Your task to perform on an android device: open a new tab in the chrome app Image 0: 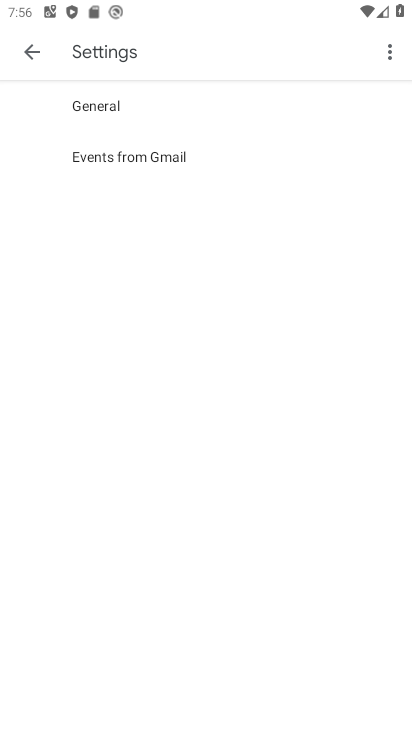
Step 0: press home button
Your task to perform on an android device: open a new tab in the chrome app Image 1: 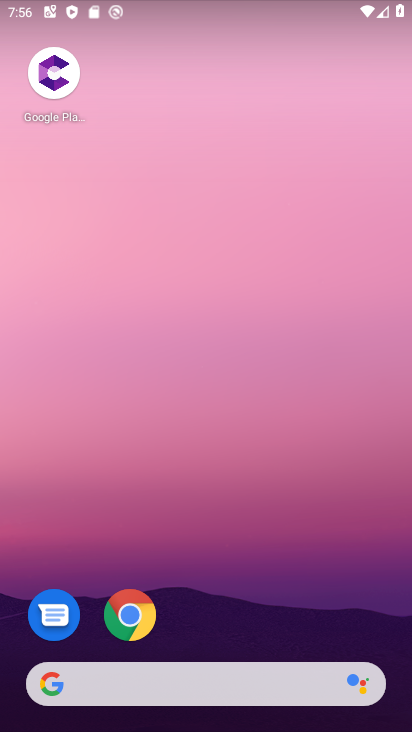
Step 1: click (128, 617)
Your task to perform on an android device: open a new tab in the chrome app Image 2: 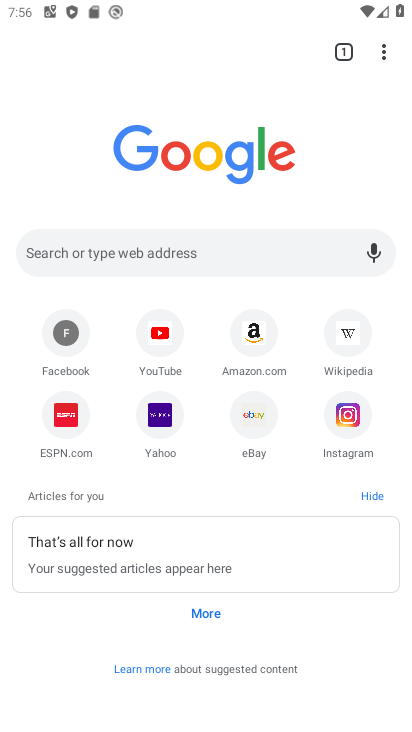
Step 2: click (349, 52)
Your task to perform on an android device: open a new tab in the chrome app Image 3: 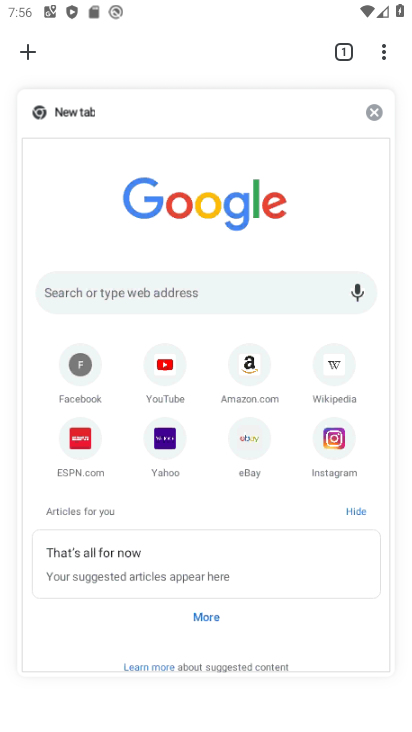
Step 3: click (25, 55)
Your task to perform on an android device: open a new tab in the chrome app Image 4: 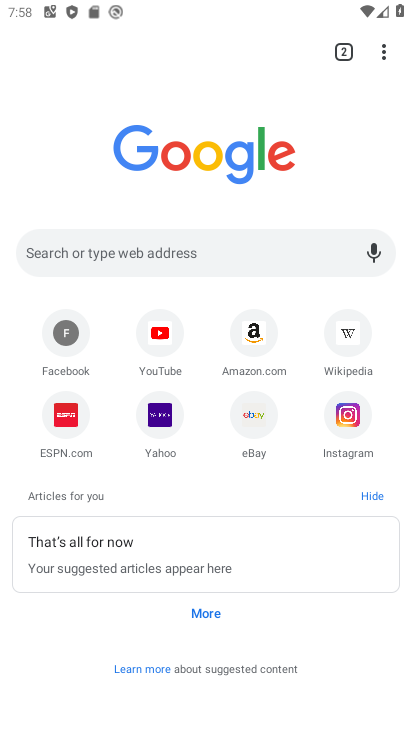
Step 4: task complete